Your task to perform on an android device: uninstall "Skype" Image 0: 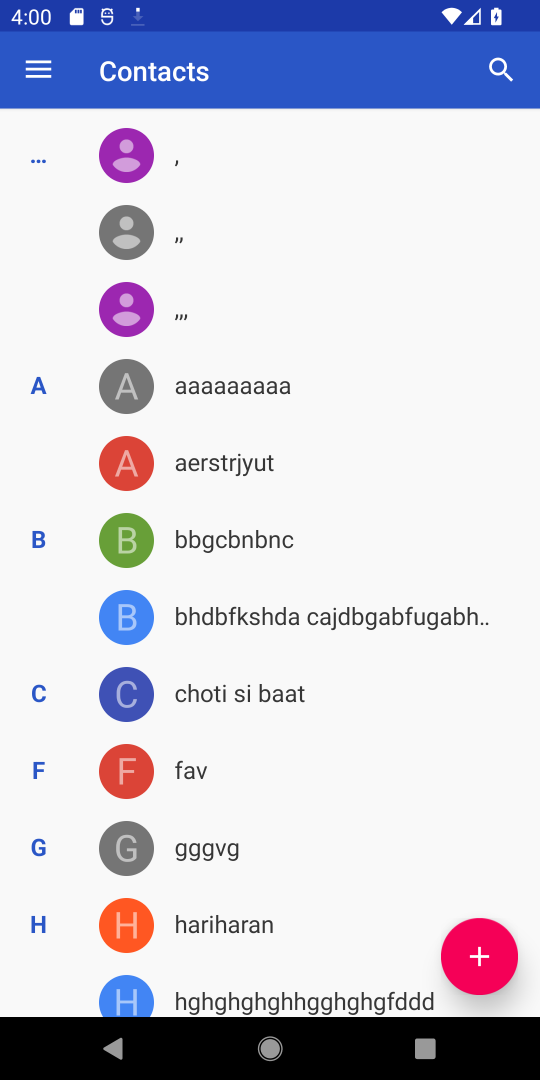
Step 0: press home button
Your task to perform on an android device: uninstall "Skype" Image 1: 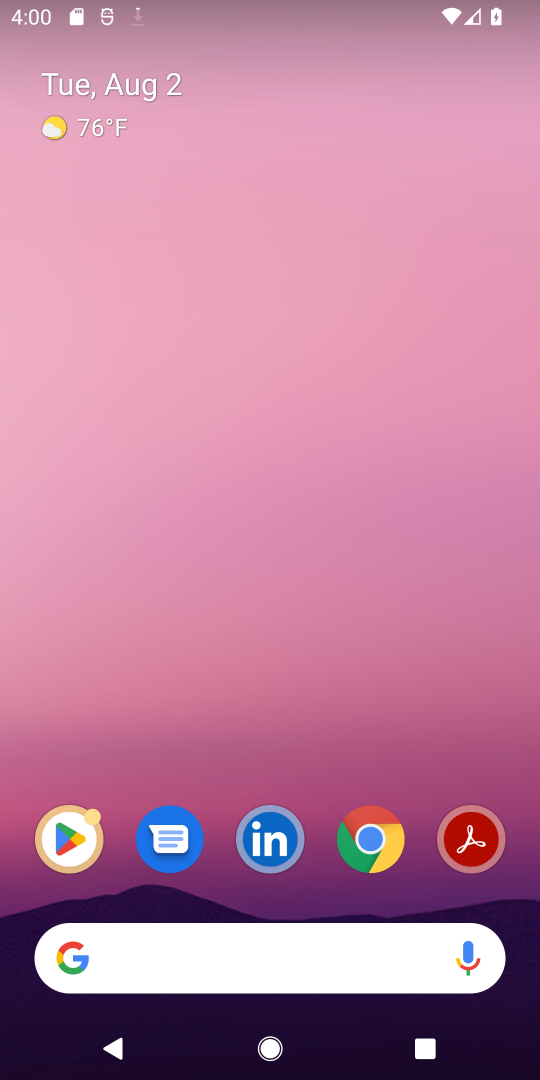
Step 1: click (99, 847)
Your task to perform on an android device: uninstall "Skype" Image 2: 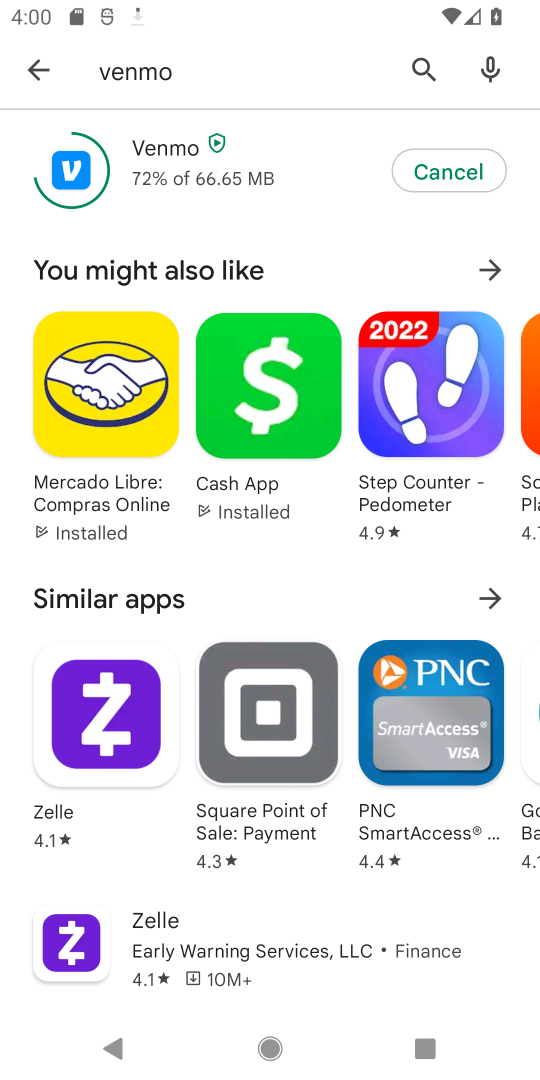
Step 2: click (441, 73)
Your task to perform on an android device: uninstall "Skype" Image 3: 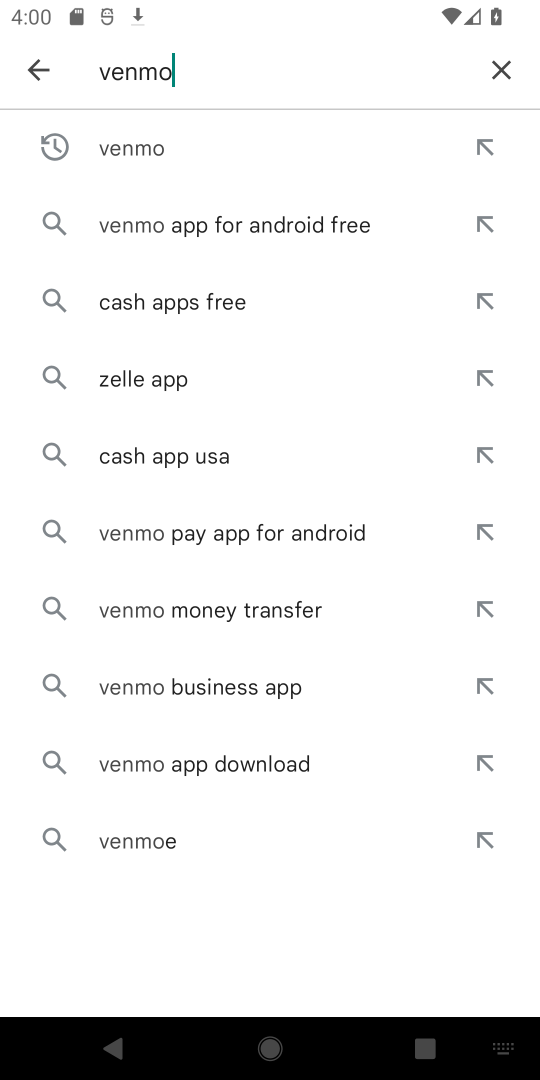
Step 3: click (491, 71)
Your task to perform on an android device: uninstall "Skype" Image 4: 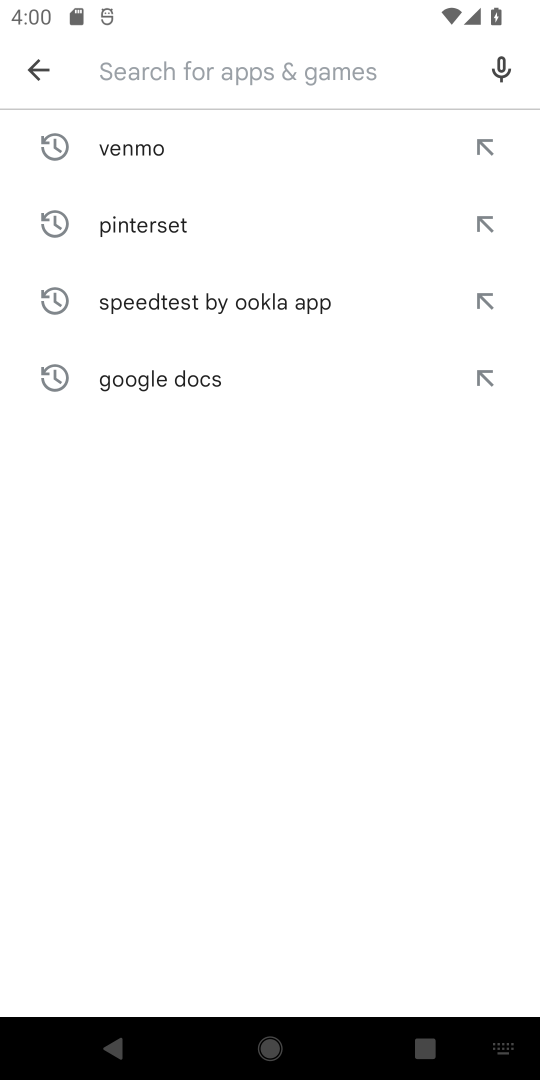
Step 4: type "skype"
Your task to perform on an android device: uninstall "Skype" Image 5: 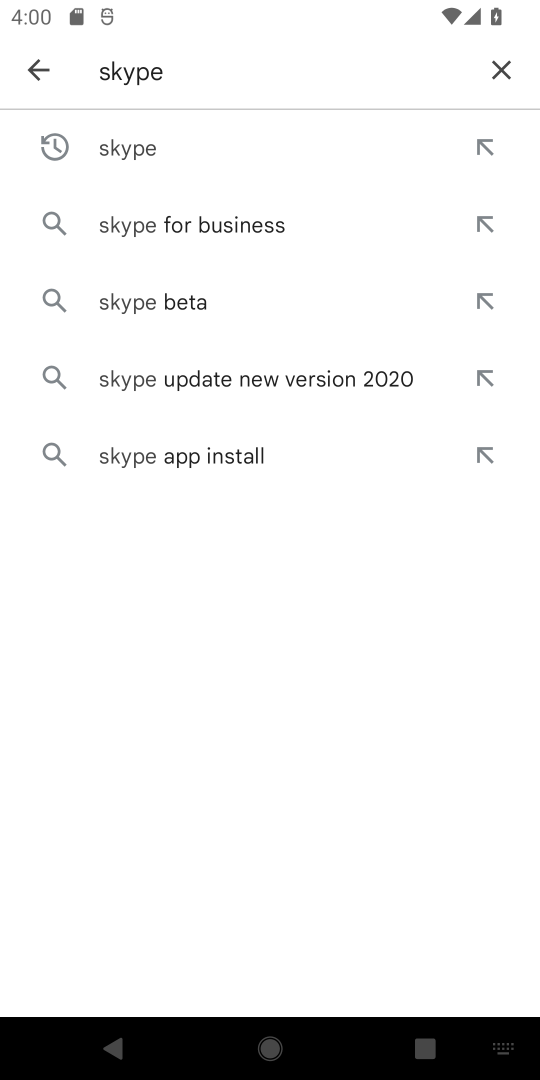
Step 5: click (280, 156)
Your task to perform on an android device: uninstall "Skype" Image 6: 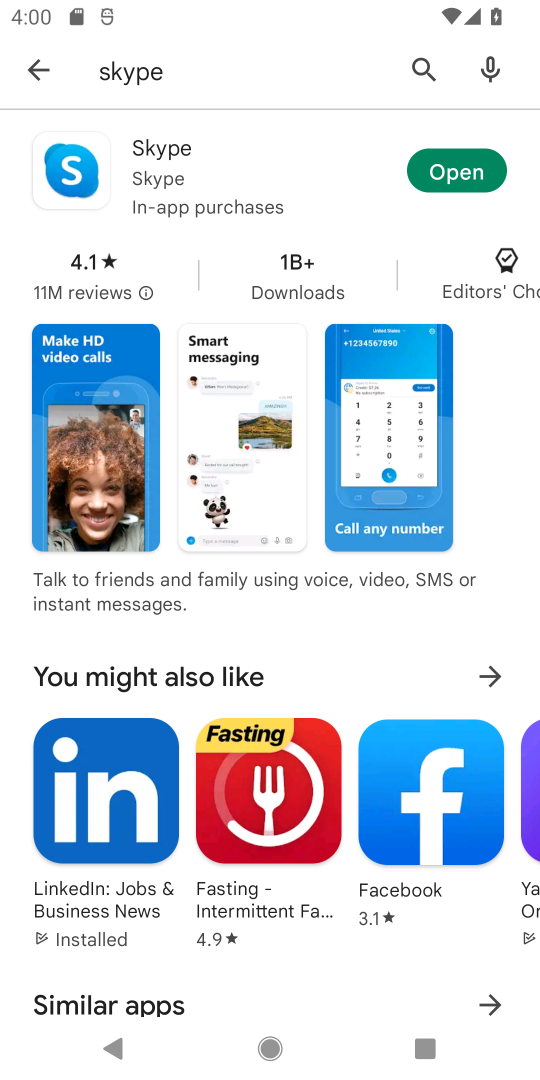
Step 6: click (433, 188)
Your task to perform on an android device: uninstall "Skype" Image 7: 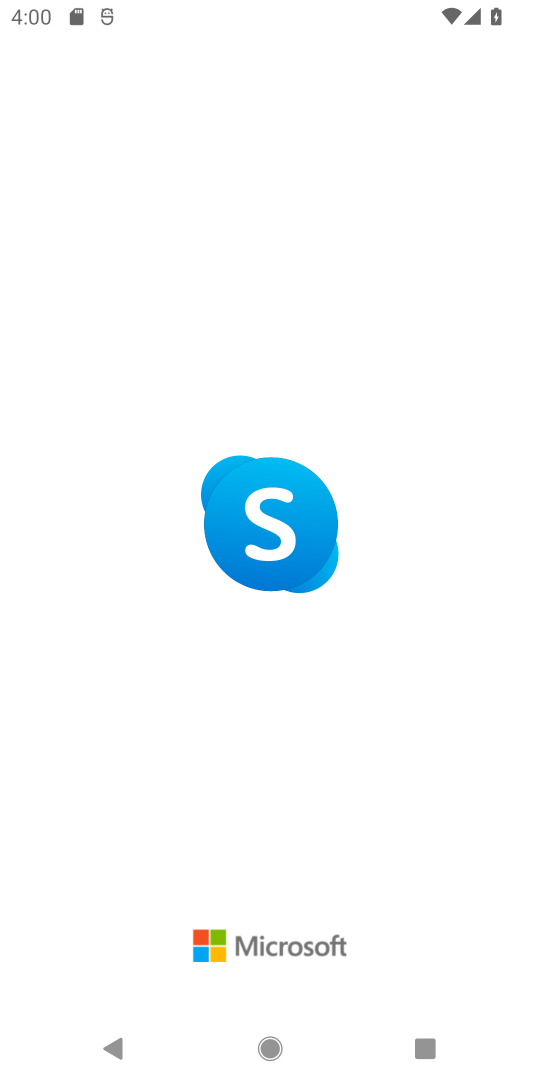
Step 7: task complete